Your task to perform on an android device: open a new tab in the chrome app Image 0: 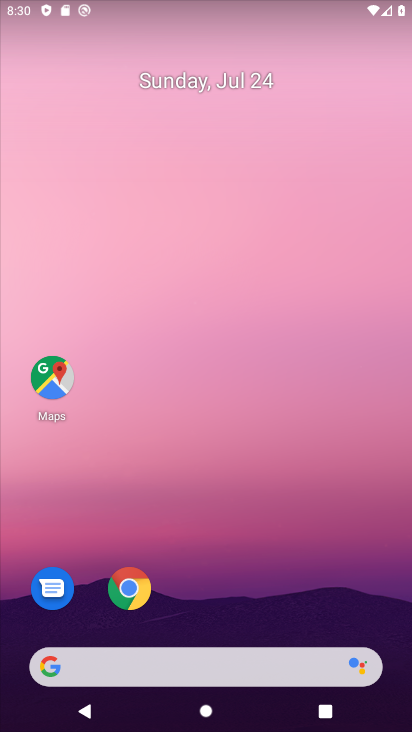
Step 0: click (129, 602)
Your task to perform on an android device: open a new tab in the chrome app Image 1: 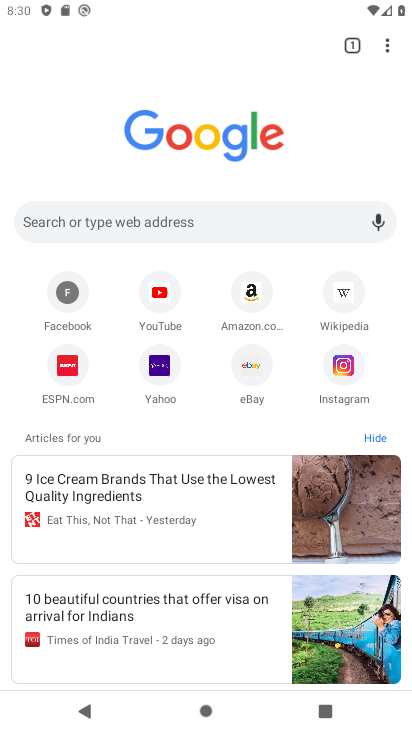
Step 1: click (387, 45)
Your task to perform on an android device: open a new tab in the chrome app Image 2: 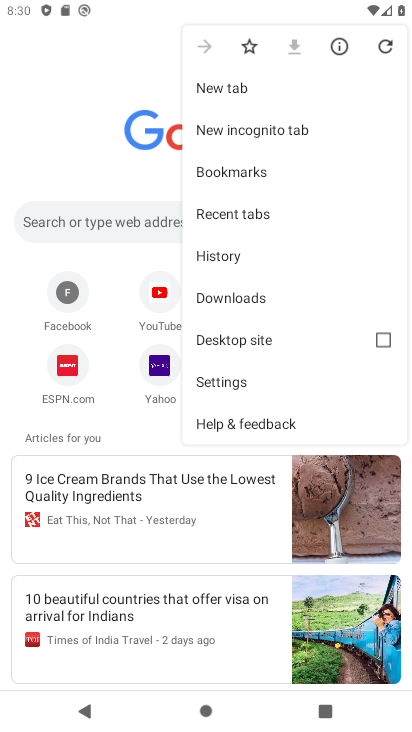
Step 2: click (233, 85)
Your task to perform on an android device: open a new tab in the chrome app Image 3: 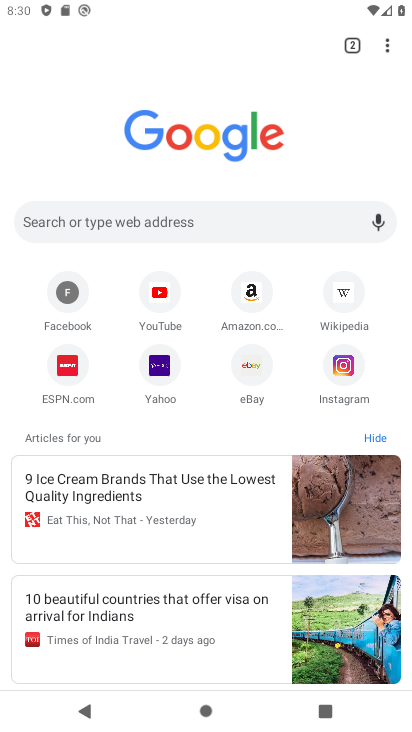
Step 3: task complete